Your task to perform on an android device: What's the weather? Image 0: 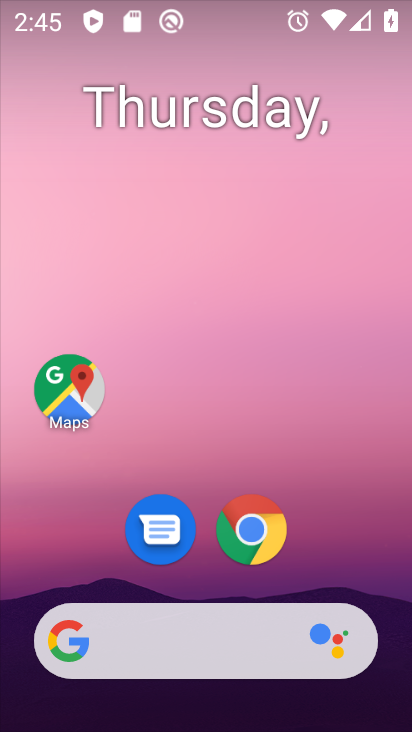
Step 0: click (236, 652)
Your task to perform on an android device: What's the weather? Image 1: 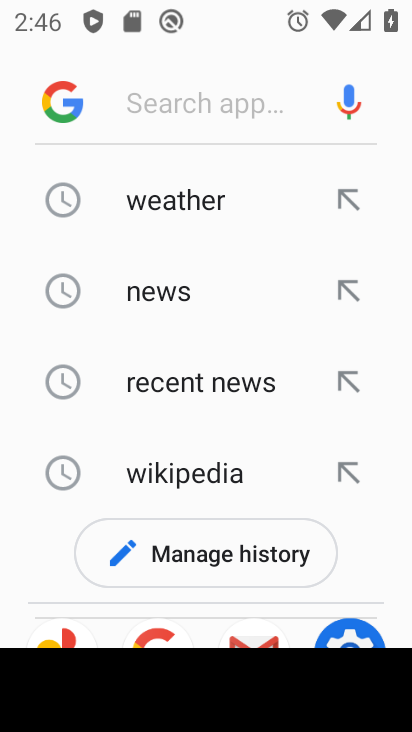
Step 1: click (193, 200)
Your task to perform on an android device: What's the weather? Image 2: 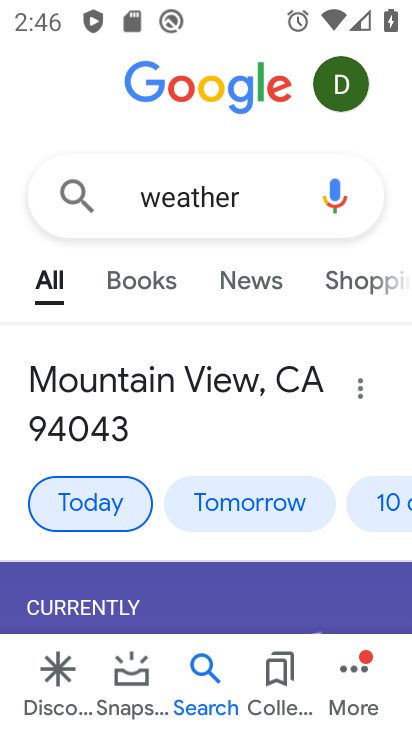
Step 2: task complete